Your task to perform on an android device: turn off sleep mode Image 0: 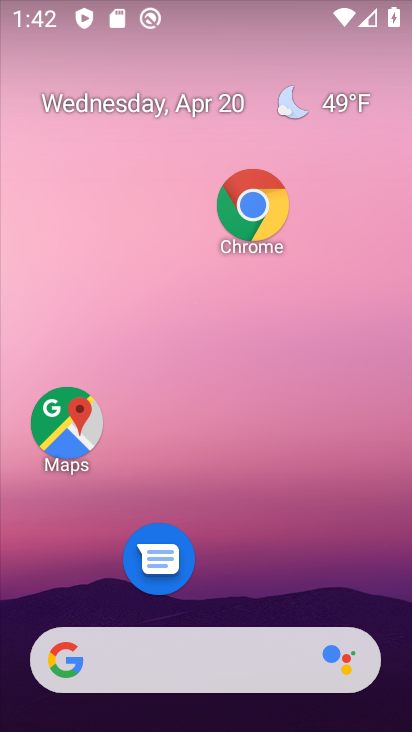
Step 0: drag from (182, 587) to (173, 245)
Your task to perform on an android device: turn off sleep mode Image 1: 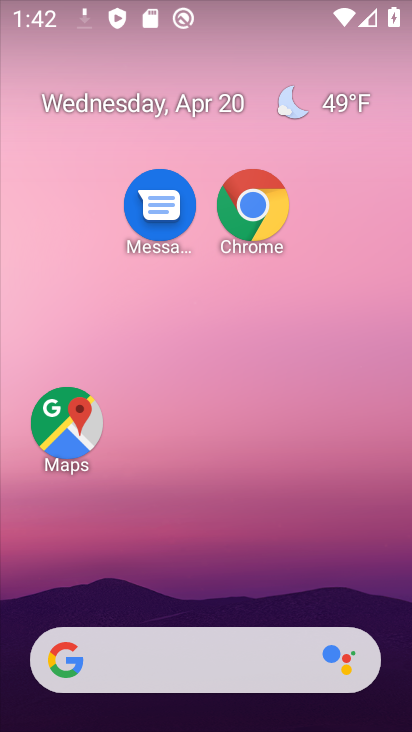
Step 1: drag from (219, 586) to (261, 187)
Your task to perform on an android device: turn off sleep mode Image 2: 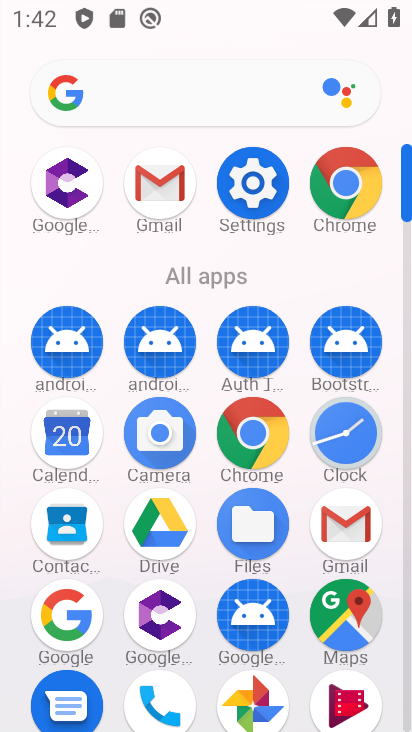
Step 2: click (263, 182)
Your task to perform on an android device: turn off sleep mode Image 3: 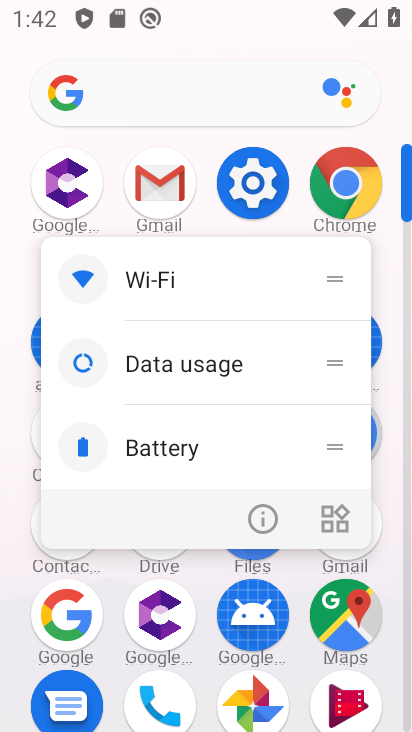
Step 3: click (263, 182)
Your task to perform on an android device: turn off sleep mode Image 4: 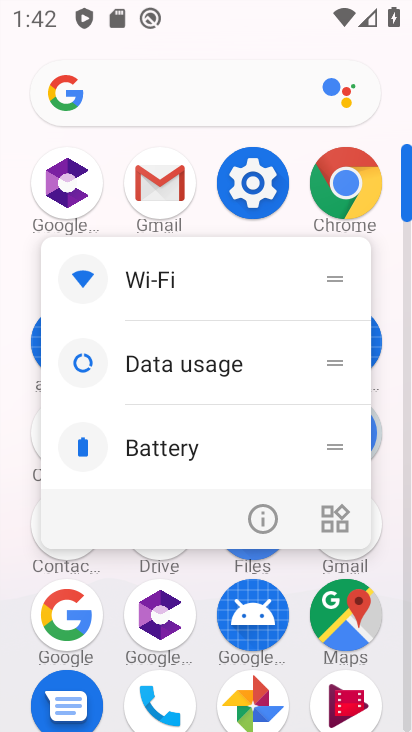
Step 4: click (243, 189)
Your task to perform on an android device: turn off sleep mode Image 5: 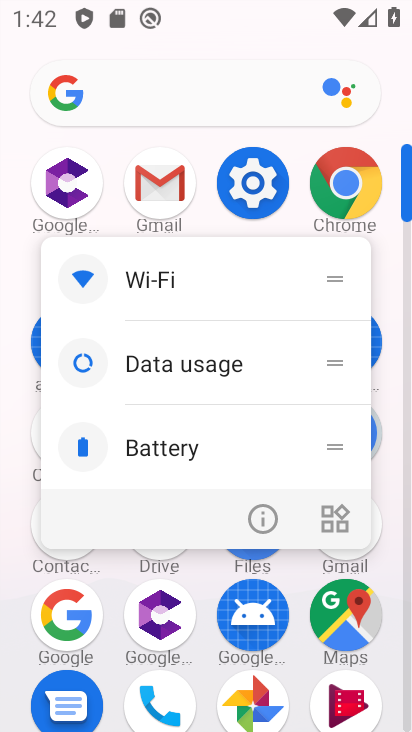
Step 5: click (247, 179)
Your task to perform on an android device: turn off sleep mode Image 6: 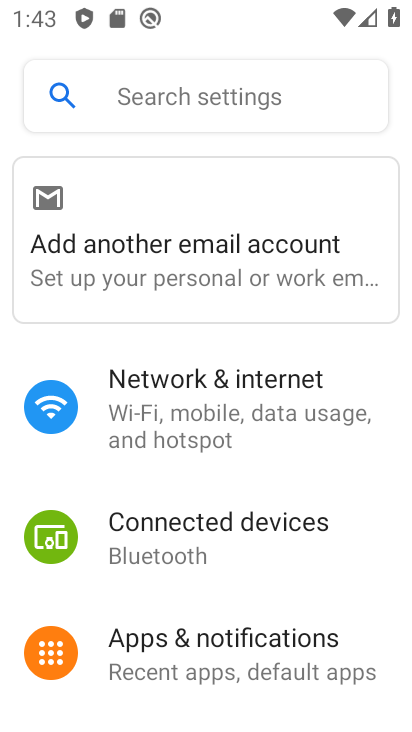
Step 6: drag from (209, 648) to (233, 367)
Your task to perform on an android device: turn off sleep mode Image 7: 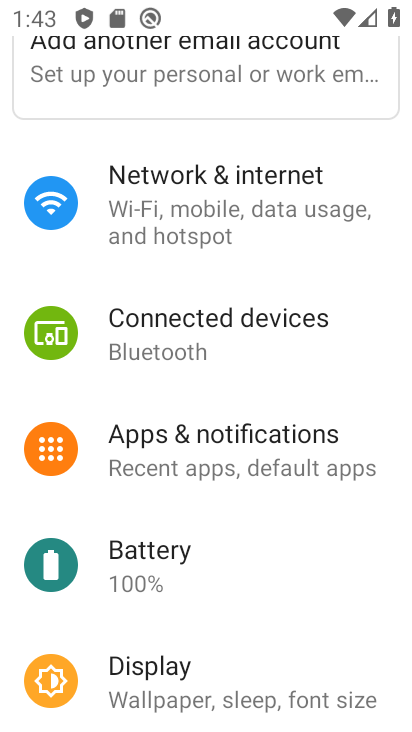
Step 7: drag from (242, 652) to (227, 379)
Your task to perform on an android device: turn off sleep mode Image 8: 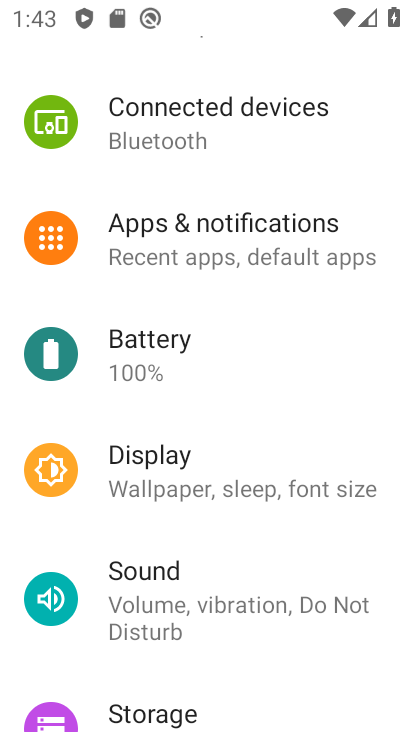
Step 8: click (188, 469)
Your task to perform on an android device: turn off sleep mode Image 9: 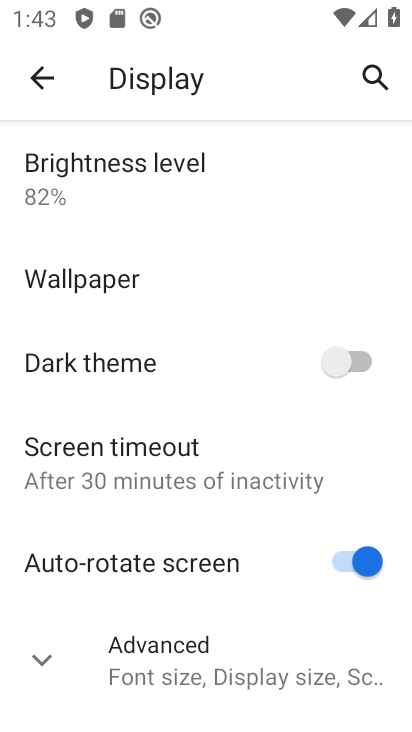
Step 9: click (173, 471)
Your task to perform on an android device: turn off sleep mode Image 10: 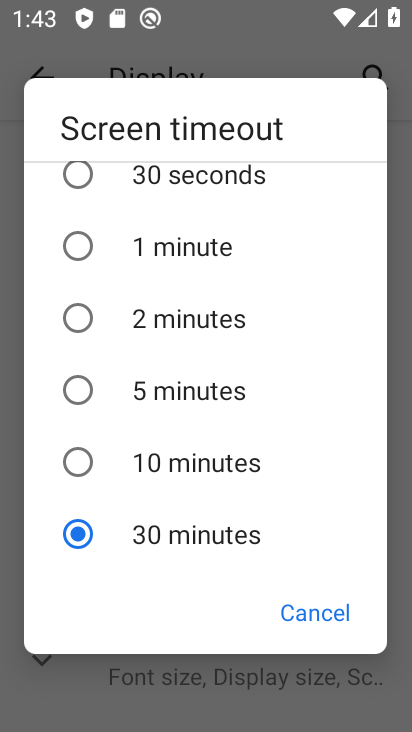
Step 10: click (70, 181)
Your task to perform on an android device: turn off sleep mode Image 11: 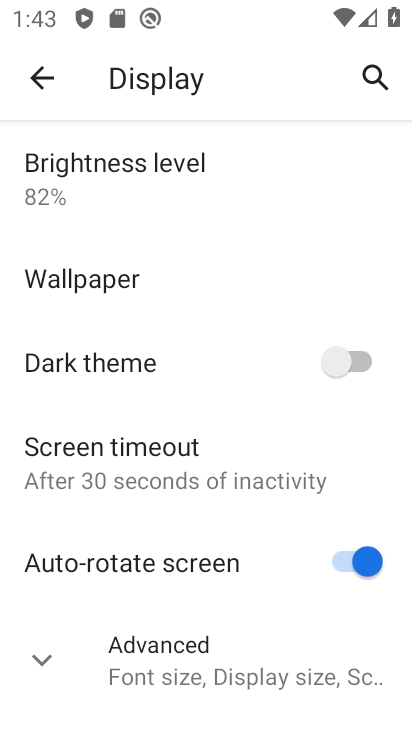
Step 11: task complete